Your task to perform on an android device: turn off sleep mode Image 0: 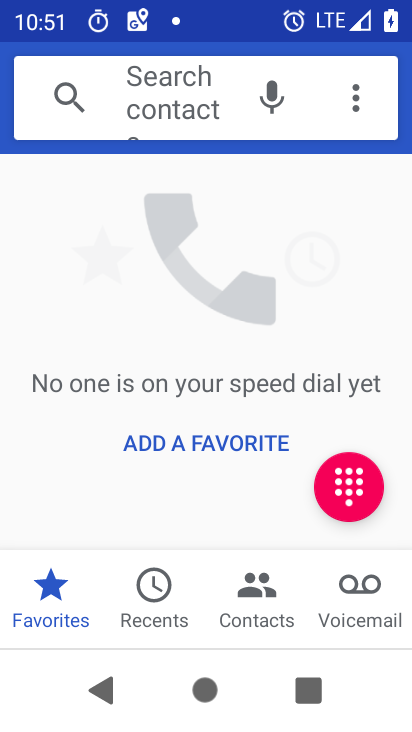
Step 0: press home button
Your task to perform on an android device: turn off sleep mode Image 1: 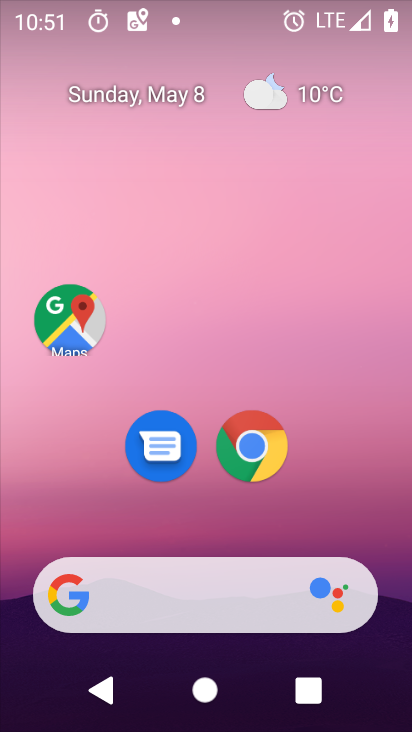
Step 1: drag from (387, 552) to (388, 9)
Your task to perform on an android device: turn off sleep mode Image 2: 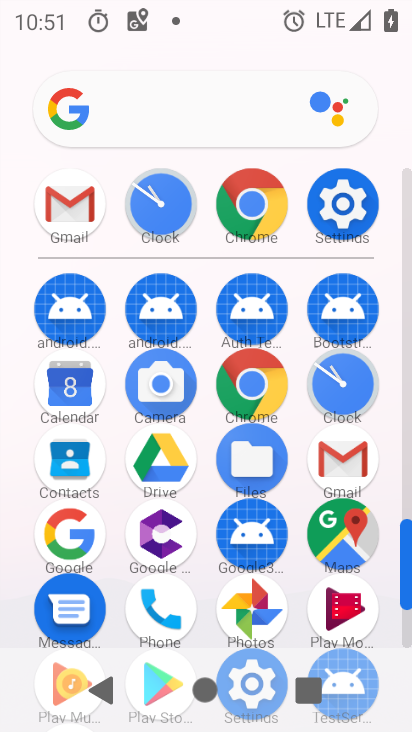
Step 2: click (344, 210)
Your task to perform on an android device: turn off sleep mode Image 3: 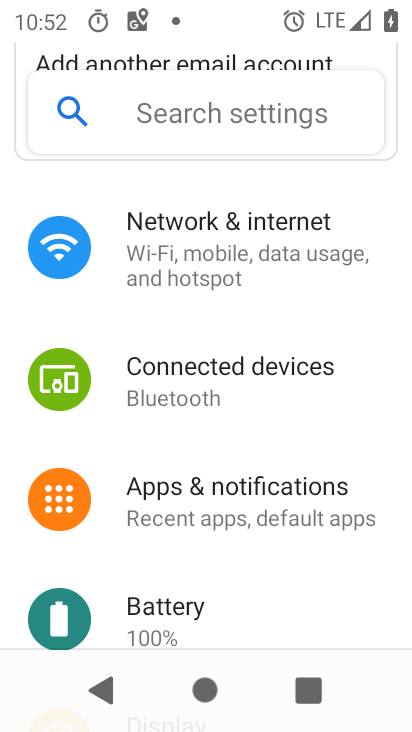
Step 3: drag from (378, 576) to (374, 343)
Your task to perform on an android device: turn off sleep mode Image 4: 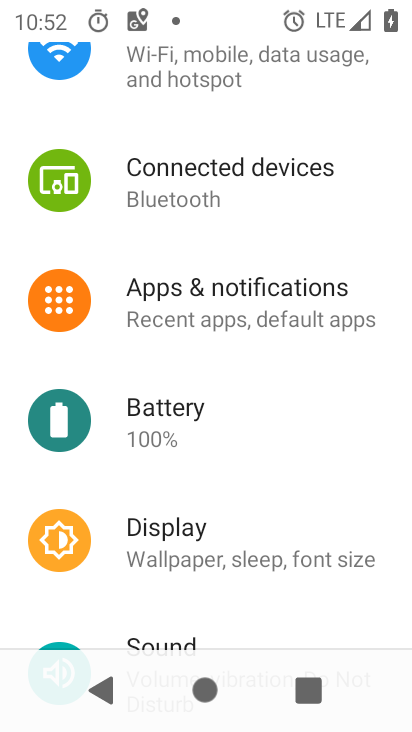
Step 4: click (169, 549)
Your task to perform on an android device: turn off sleep mode Image 5: 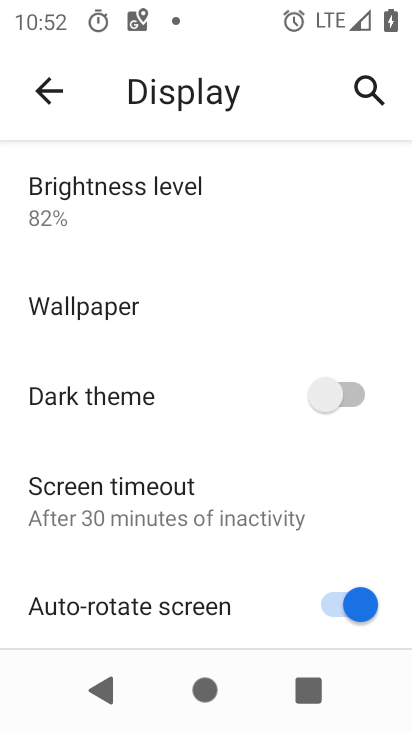
Step 5: drag from (169, 546) to (184, 159)
Your task to perform on an android device: turn off sleep mode Image 6: 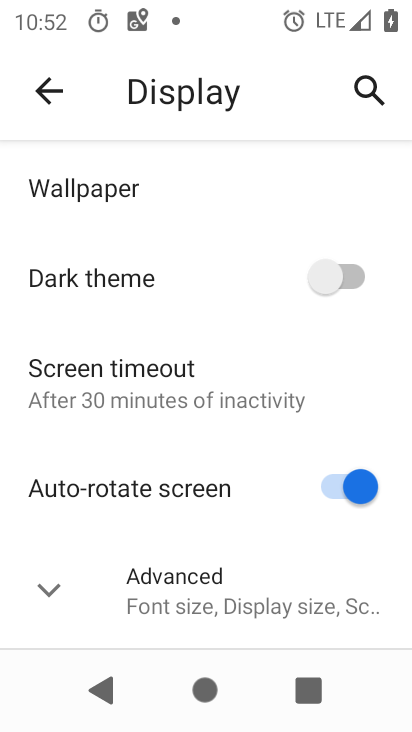
Step 6: click (54, 599)
Your task to perform on an android device: turn off sleep mode Image 7: 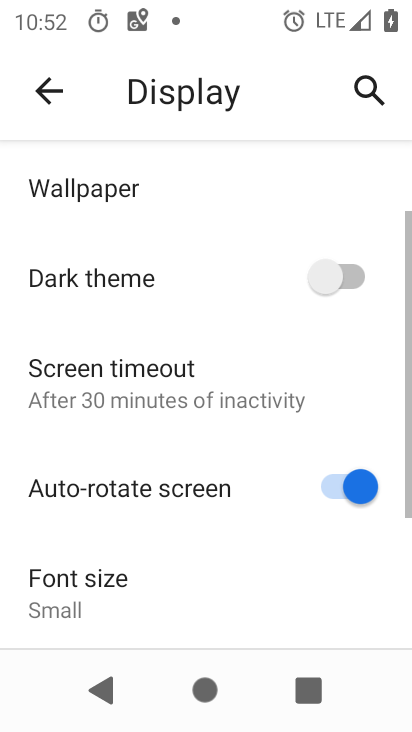
Step 7: task complete